Your task to perform on an android device: toggle location history Image 0: 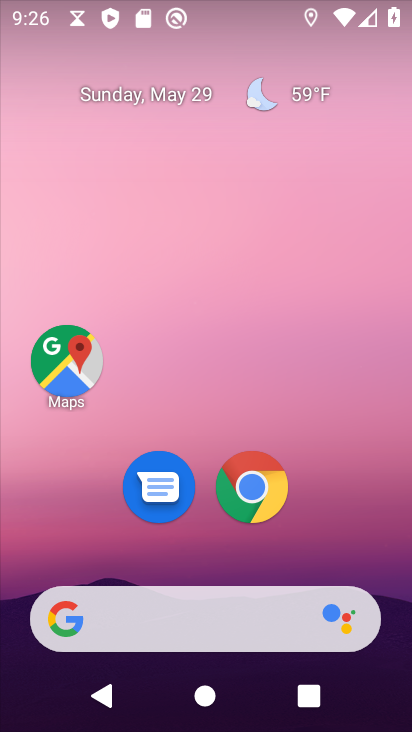
Step 0: drag from (309, 549) to (241, 110)
Your task to perform on an android device: toggle location history Image 1: 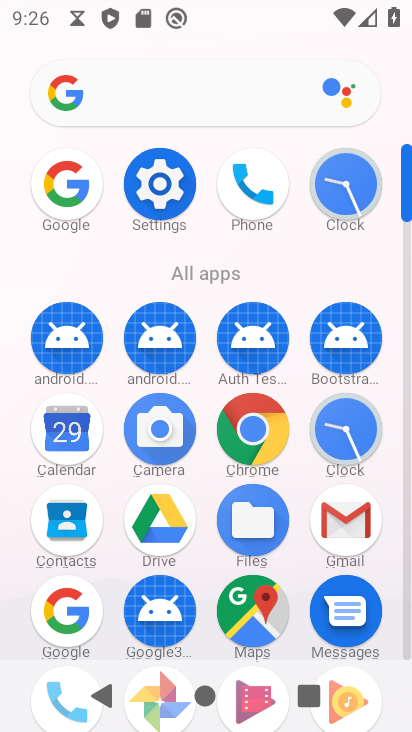
Step 1: click (158, 185)
Your task to perform on an android device: toggle location history Image 2: 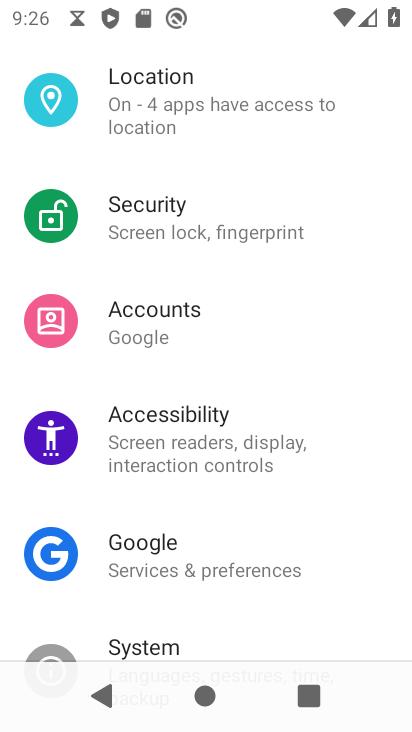
Step 2: drag from (161, 508) to (206, 406)
Your task to perform on an android device: toggle location history Image 3: 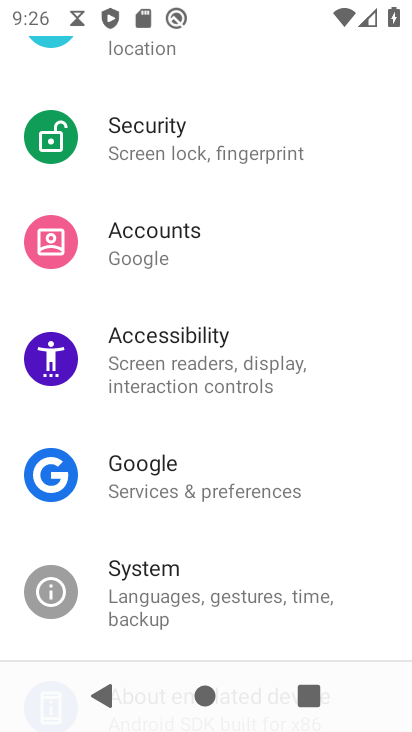
Step 3: drag from (225, 270) to (167, 434)
Your task to perform on an android device: toggle location history Image 4: 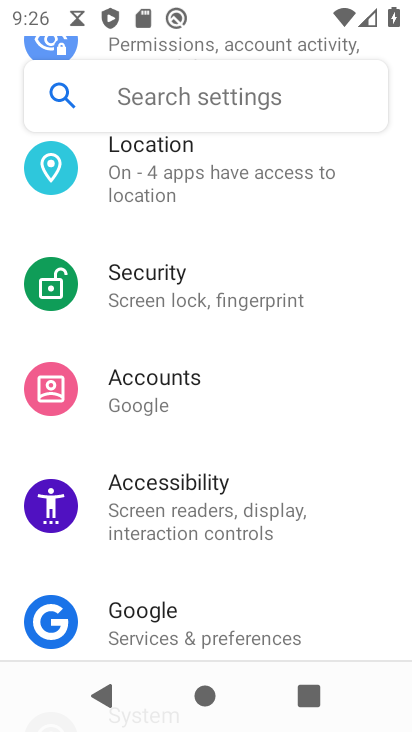
Step 4: drag from (212, 264) to (194, 445)
Your task to perform on an android device: toggle location history Image 5: 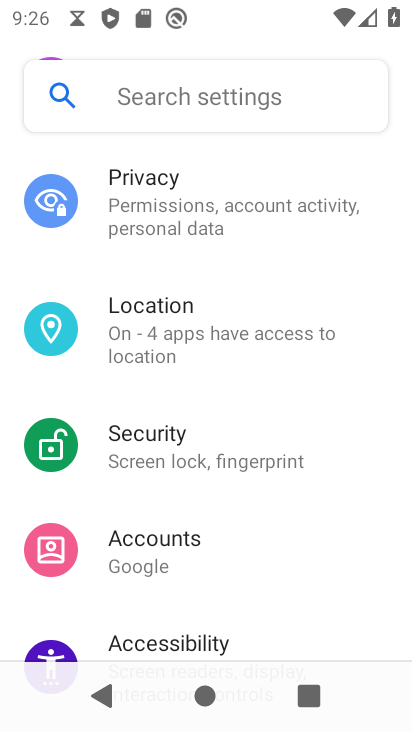
Step 5: click (152, 341)
Your task to perform on an android device: toggle location history Image 6: 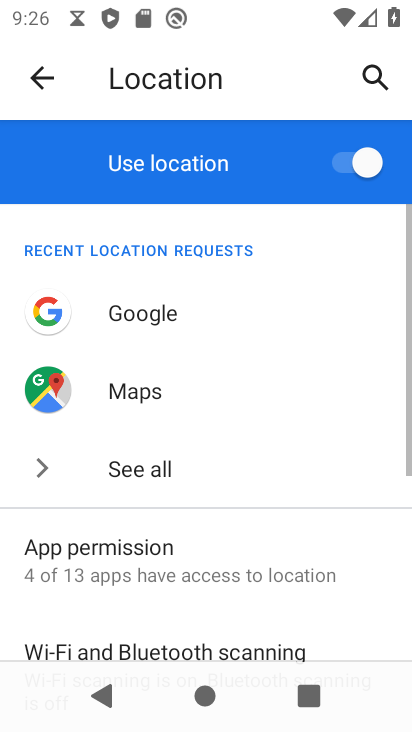
Step 6: drag from (164, 602) to (203, 449)
Your task to perform on an android device: toggle location history Image 7: 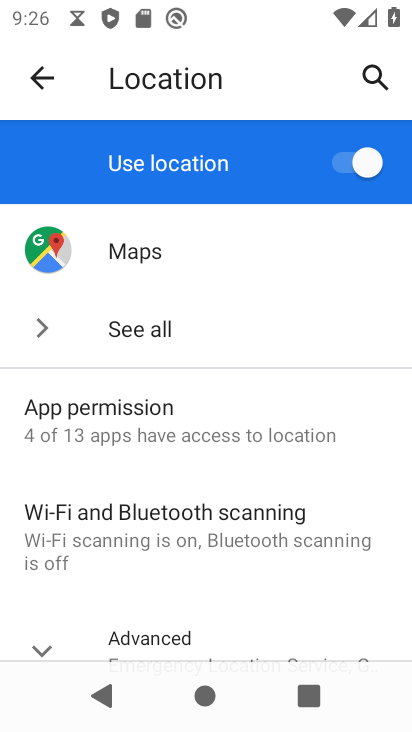
Step 7: drag from (195, 598) to (270, 446)
Your task to perform on an android device: toggle location history Image 8: 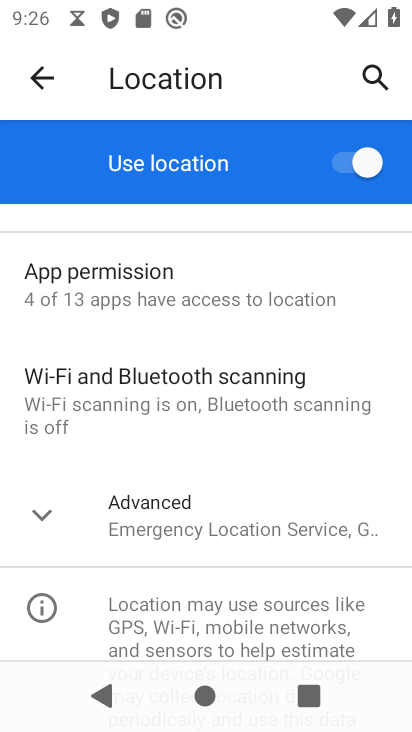
Step 8: click (230, 513)
Your task to perform on an android device: toggle location history Image 9: 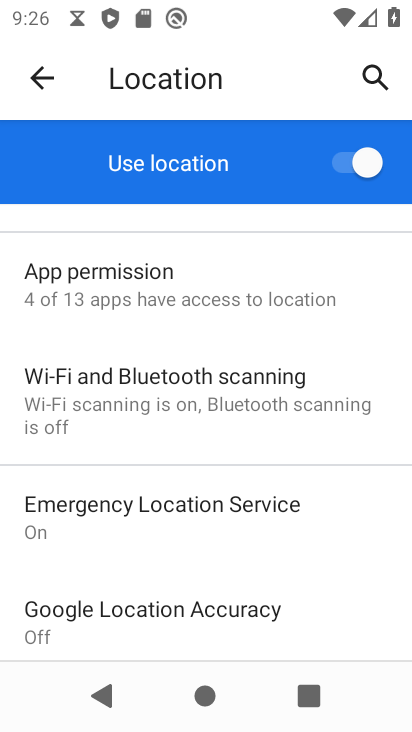
Step 9: drag from (192, 564) to (282, 428)
Your task to perform on an android device: toggle location history Image 10: 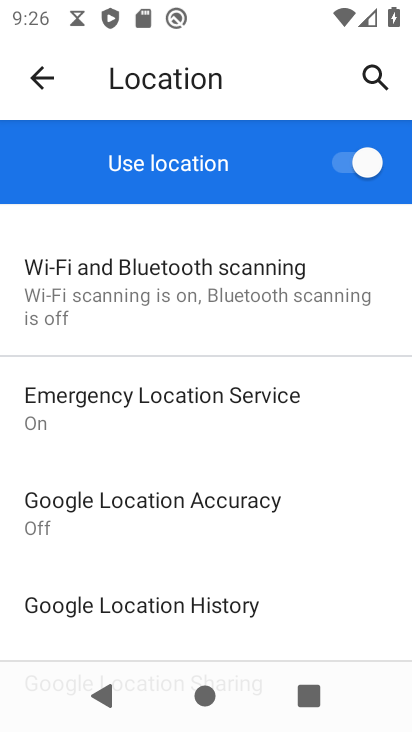
Step 10: drag from (165, 561) to (256, 453)
Your task to perform on an android device: toggle location history Image 11: 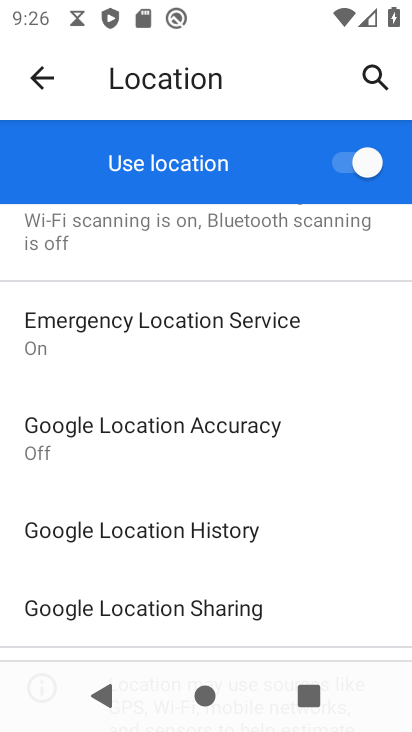
Step 11: drag from (136, 564) to (234, 457)
Your task to perform on an android device: toggle location history Image 12: 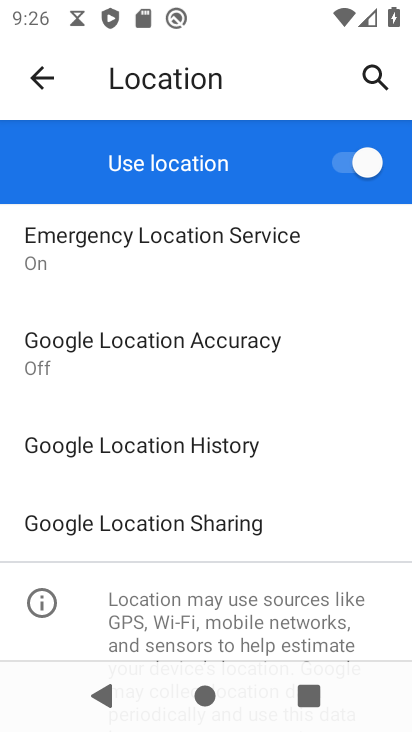
Step 12: click (218, 445)
Your task to perform on an android device: toggle location history Image 13: 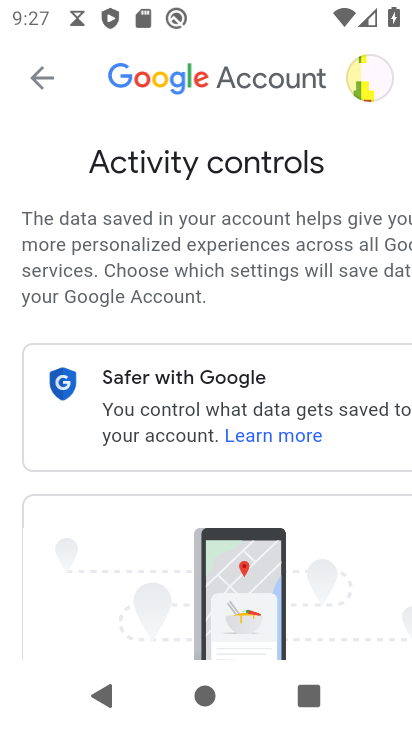
Step 13: drag from (153, 528) to (216, 385)
Your task to perform on an android device: toggle location history Image 14: 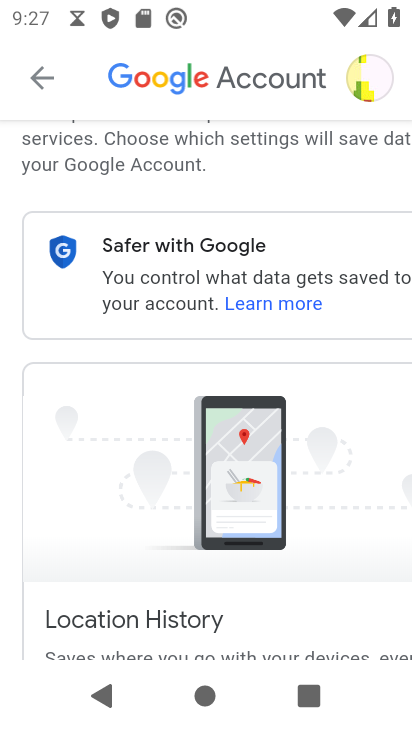
Step 14: drag from (152, 548) to (219, 414)
Your task to perform on an android device: toggle location history Image 15: 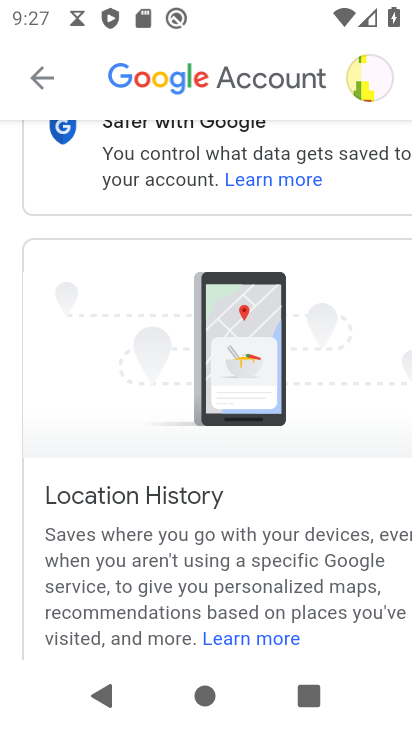
Step 15: drag from (169, 587) to (261, 468)
Your task to perform on an android device: toggle location history Image 16: 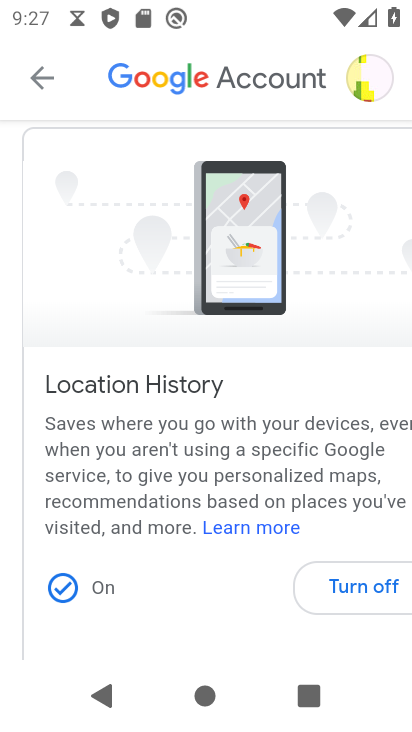
Step 16: click (342, 584)
Your task to perform on an android device: toggle location history Image 17: 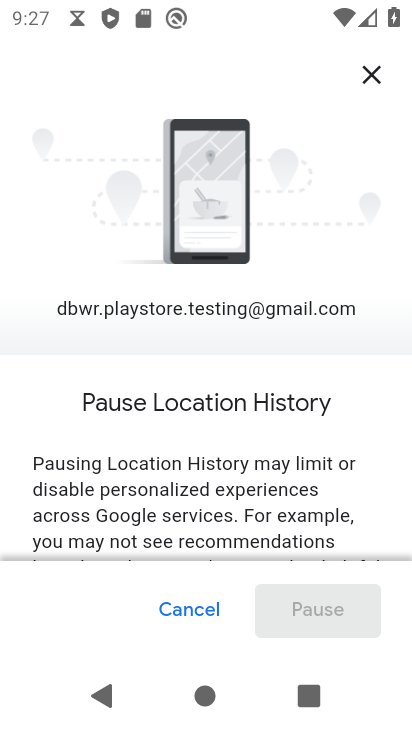
Step 17: drag from (266, 476) to (353, 347)
Your task to perform on an android device: toggle location history Image 18: 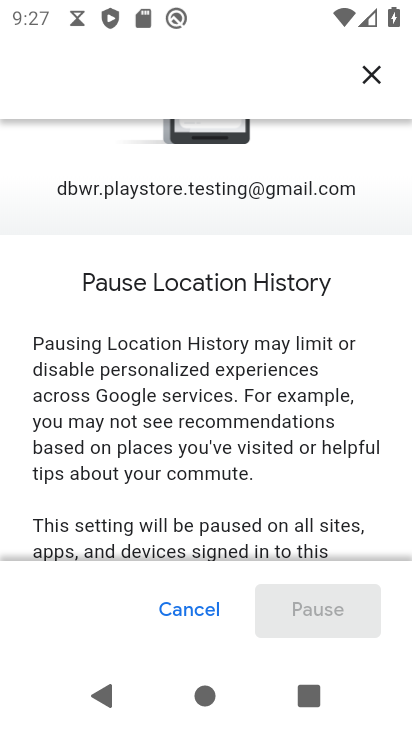
Step 18: drag from (240, 524) to (343, 403)
Your task to perform on an android device: toggle location history Image 19: 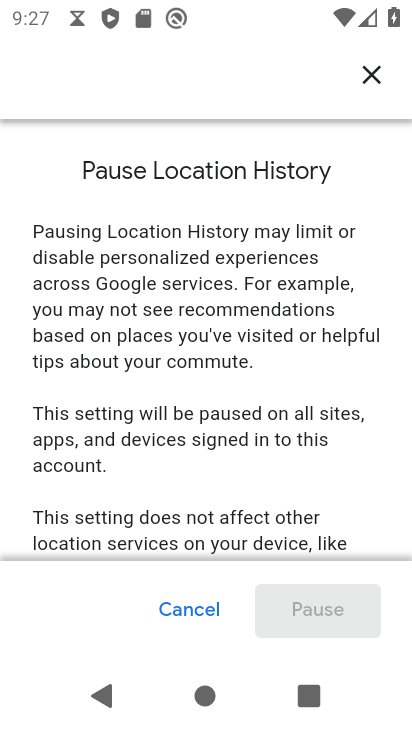
Step 19: drag from (209, 536) to (302, 430)
Your task to perform on an android device: toggle location history Image 20: 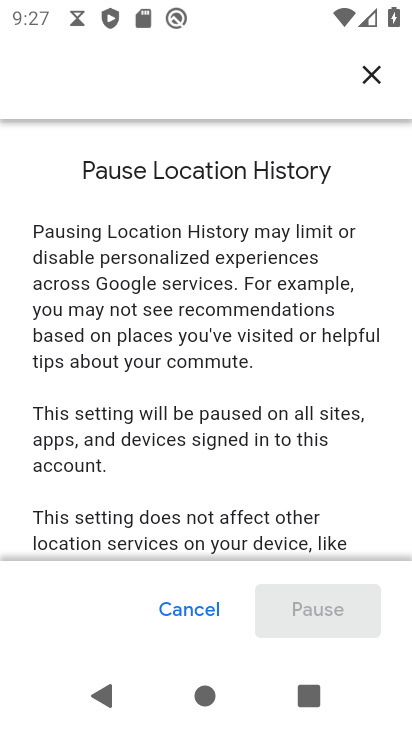
Step 20: drag from (196, 508) to (250, 409)
Your task to perform on an android device: toggle location history Image 21: 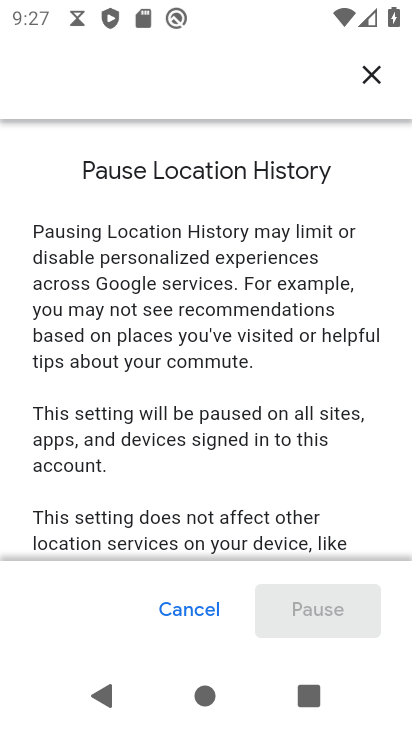
Step 21: drag from (241, 381) to (307, 242)
Your task to perform on an android device: toggle location history Image 22: 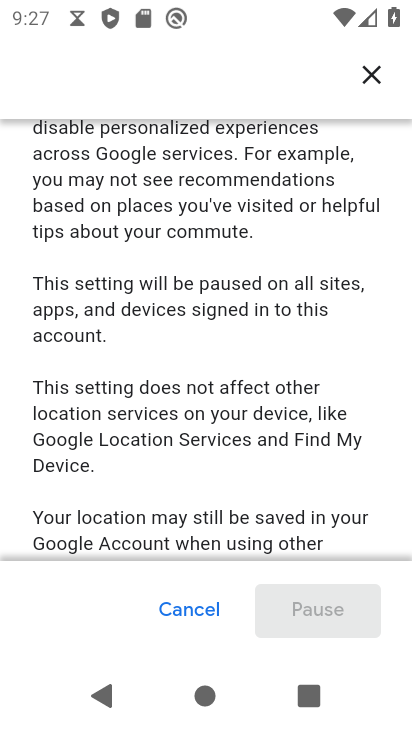
Step 22: drag from (237, 340) to (307, 240)
Your task to perform on an android device: toggle location history Image 23: 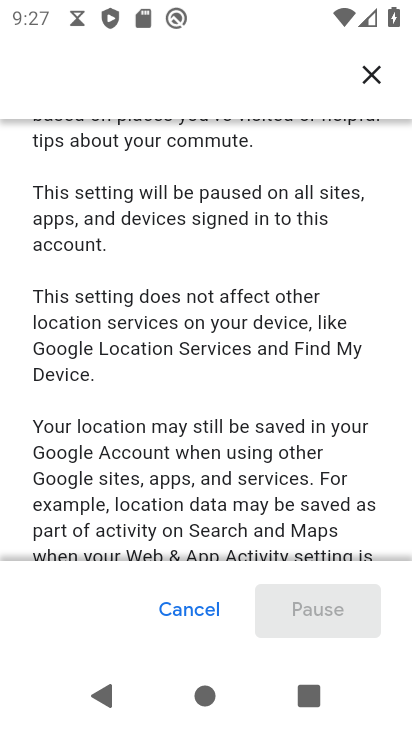
Step 23: drag from (203, 311) to (283, 218)
Your task to perform on an android device: toggle location history Image 24: 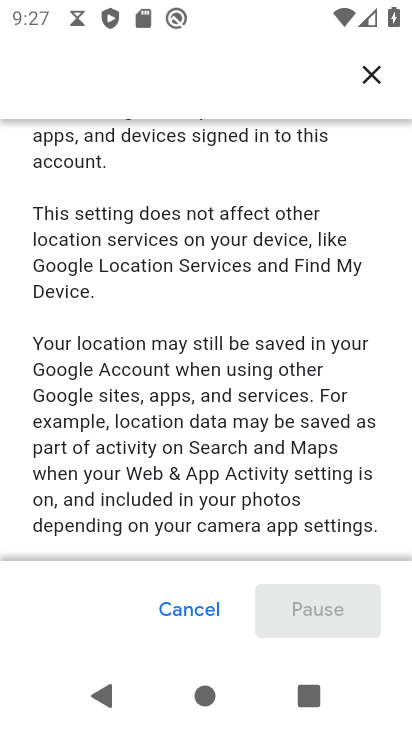
Step 24: drag from (232, 327) to (312, 238)
Your task to perform on an android device: toggle location history Image 25: 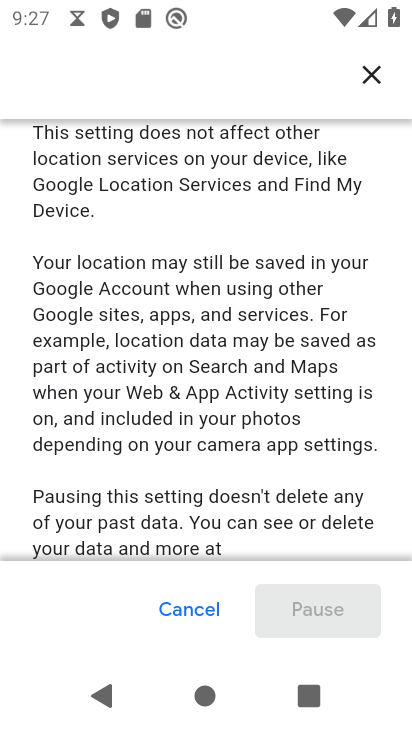
Step 25: drag from (240, 360) to (307, 282)
Your task to perform on an android device: toggle location history Image 26: 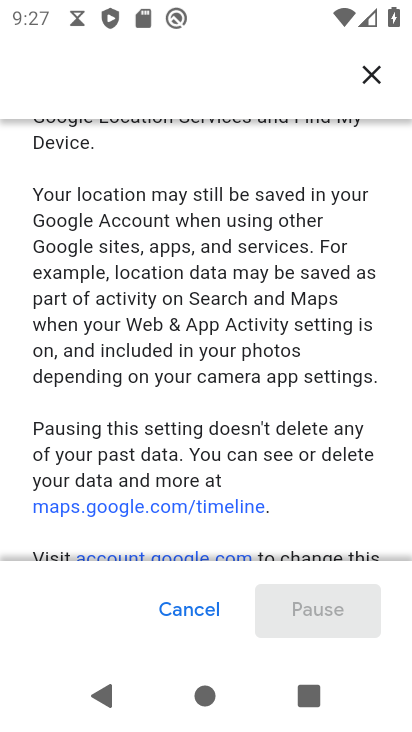
Step 26: drag from (235, 385) to (320, 279)
Your task to perform on an android device: toggle location history Image 27: 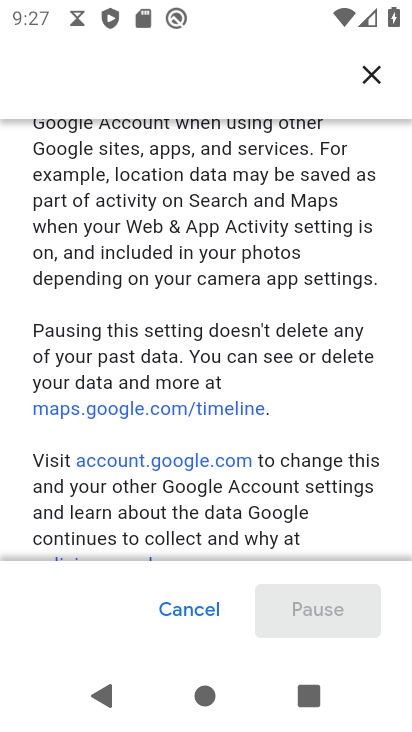
Step 27: drag from (244, 338) to (334, 225)
Your task to perform on an android device: toggle location history Image 28: 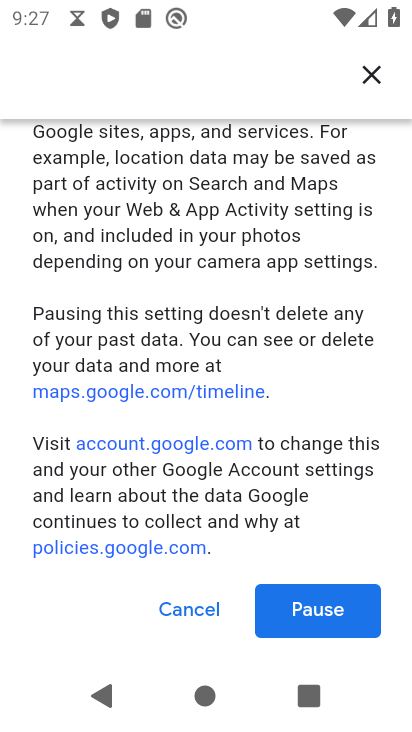
Step 28: click (317, 611)
Your task to perform on an android device: toggle location history Image 29: 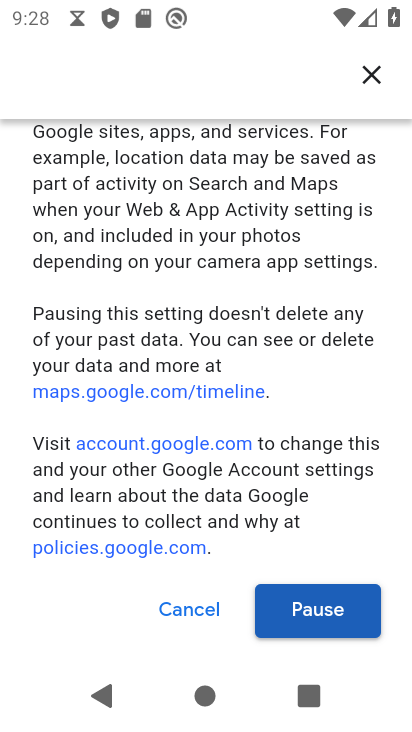
Step 29: click (330, 626)
Your task to perform on an android device: toggle location history Image 30: 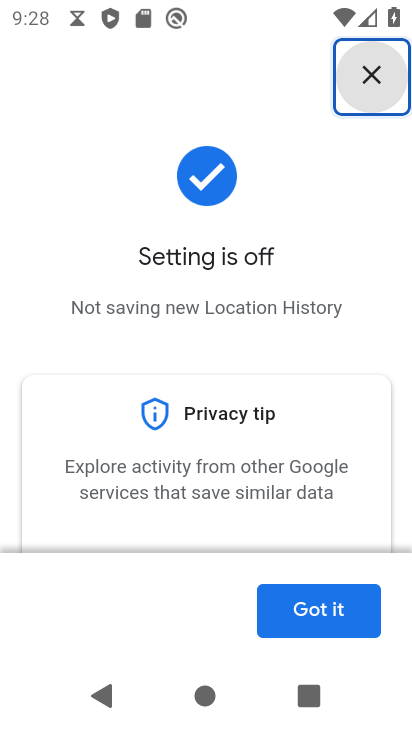
Step 30: click (335, 603)
Your task to perform on an android device: toggle location history Image 31: 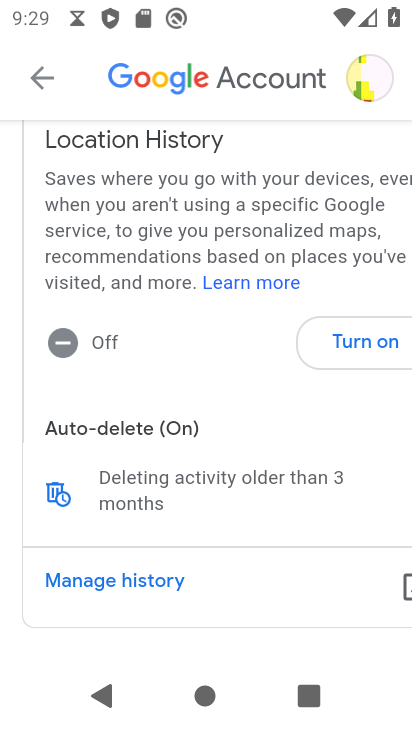
Step 31: task complete